Your task to perform on an android device: Open maps Image 0: 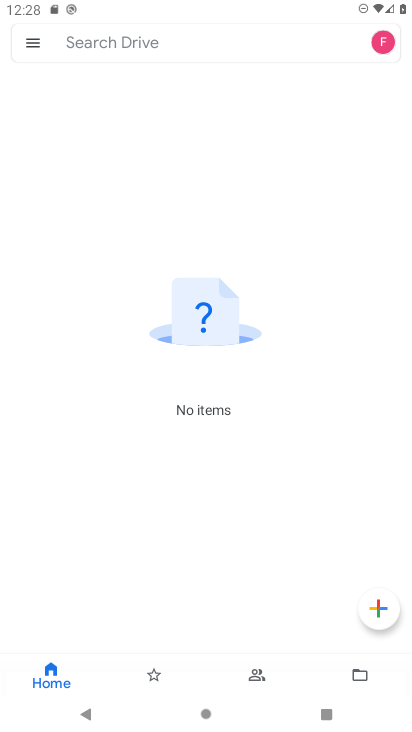
Step 0: press home button
Your task to perform on an android device: Open maps Image 1: 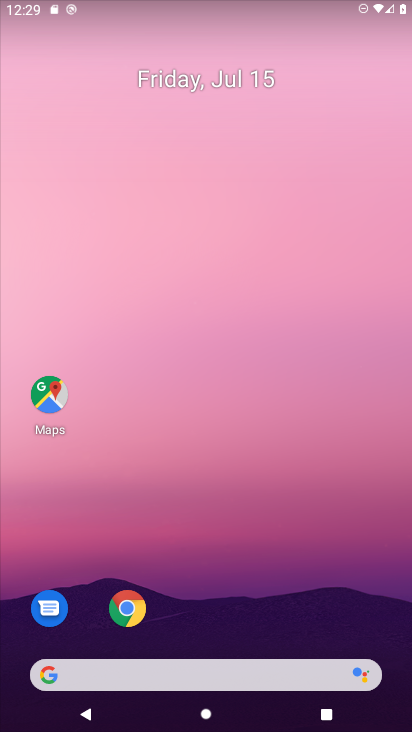
Step 1: drag from (238, 660) to (248, 0)
Your task to perform on an android device: Open maps Image 2: 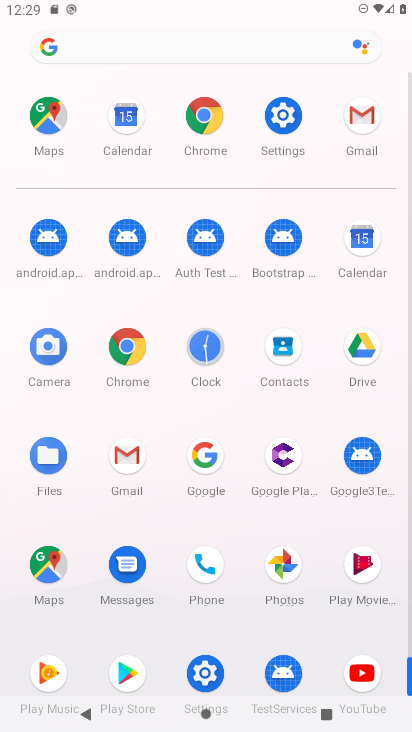
Step 2: click (44, 557)
Your task to perform on an android device: Open maps Image 3: 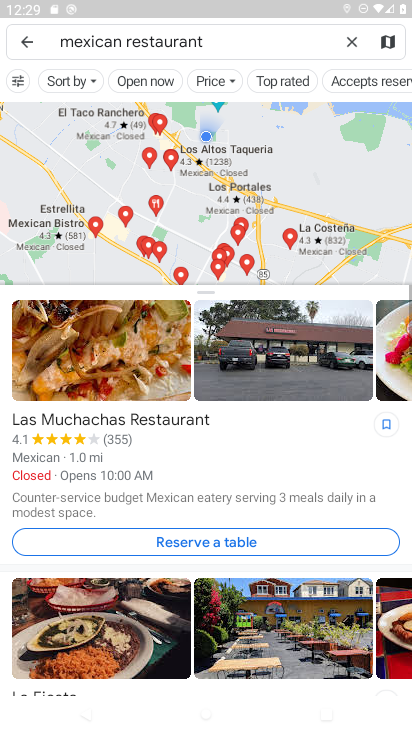
Step 3: task complete